Your task to perform on an android device: Open the calendar and show me this week's events Image 0: 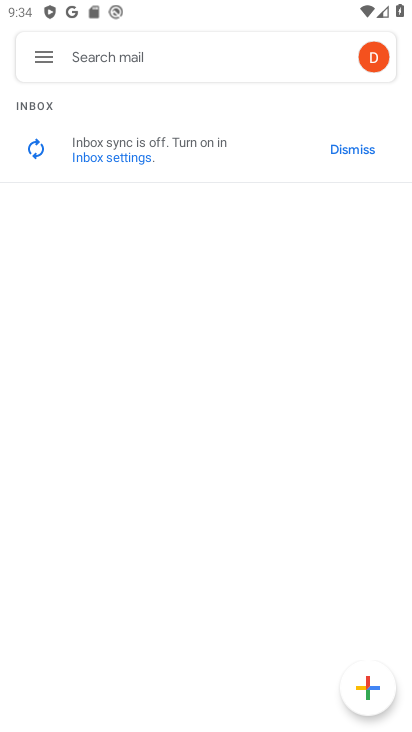
Step 0: press home button
Your task to perform on an android device: Open the calendar and show me this week's events Image 1: 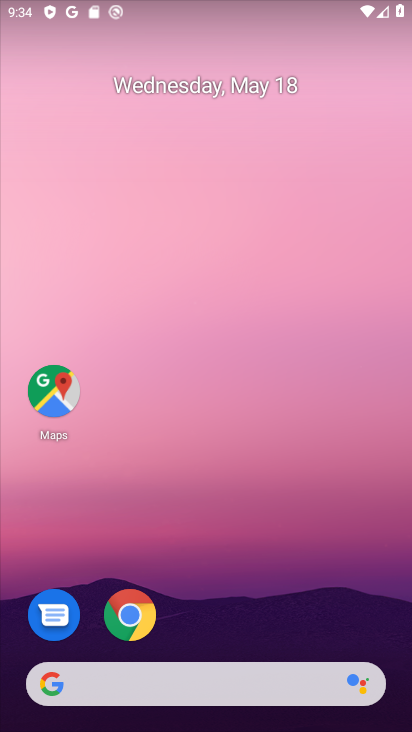
Step 1: drag from (276, 624) to (256, 22)
Your task to perform on an android device: Open the calendar and show me this week's events Image 2: 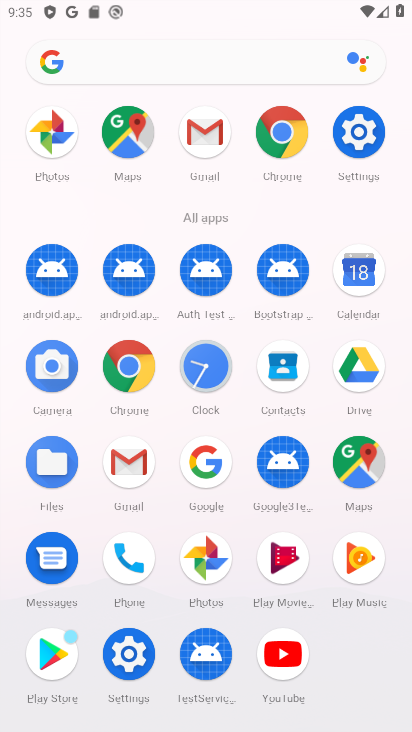
Step 2: click (344, 256)
Your task to perform on an android device: Open the calendar and show me this week's events Image 3: 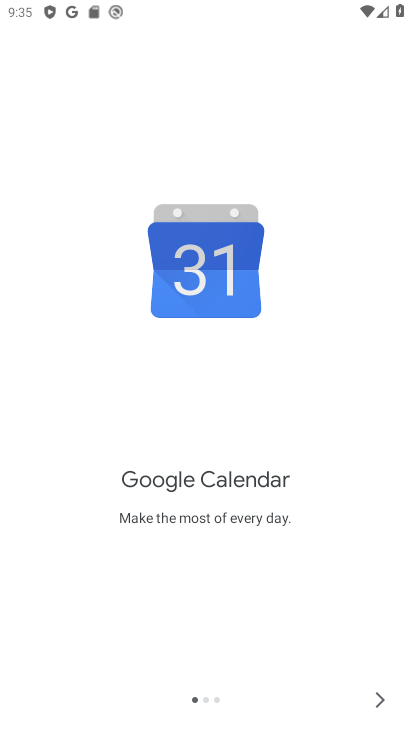
Step 3: click (386, 724)
Your task to perform on an android device: Open the calendar and show me this week's events Image 4: 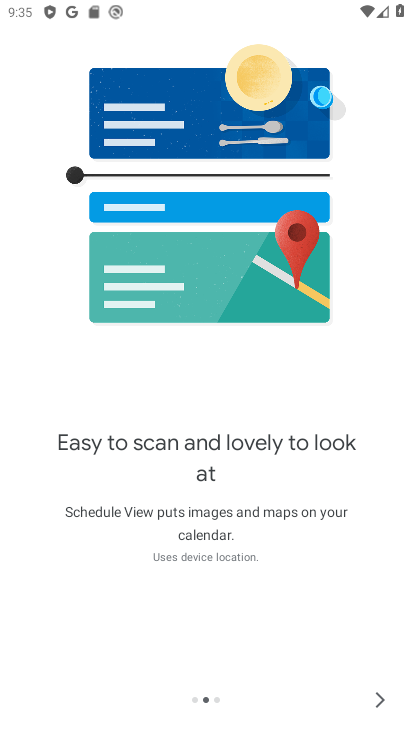
Step 4: click (375, 696)
Your task to perform on an android device: Open the calendar and show me this week's events Image 5: 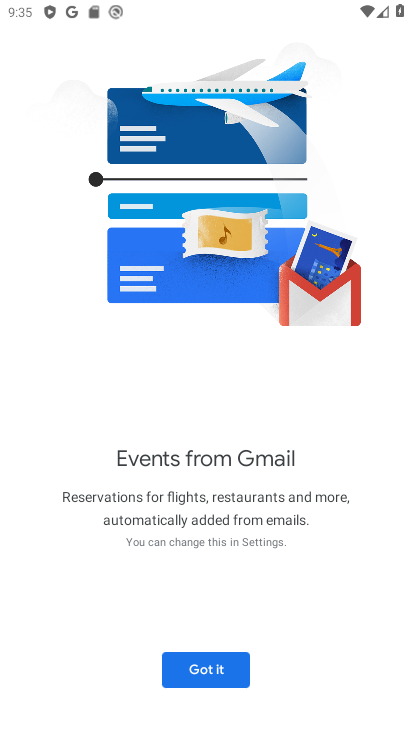
Step 5: click (225, 662)
Your task to perform on an android device: Open the calendar and show me this week's events Image 6: 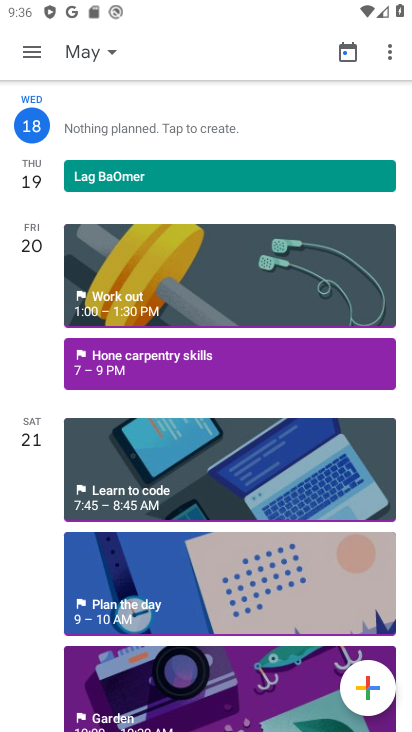
Step 6: click (92, 51)
Your task to perform on an android device: Open the calendar and show me this week's events Image 7: 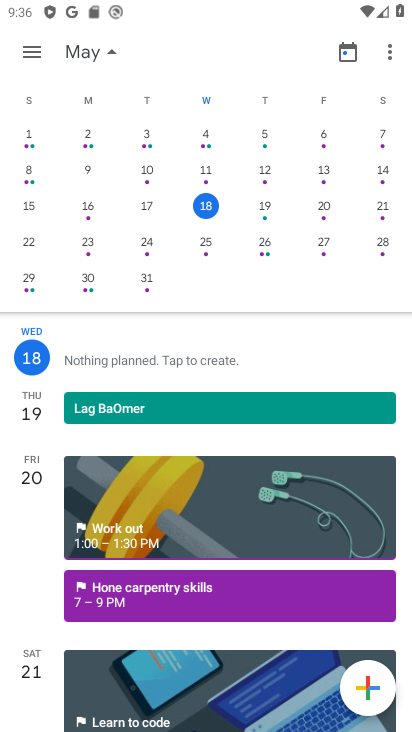
Step 7: click (37, 46)
Your task to perform on an android device: Open the calendar and show me this week's events Image 8: 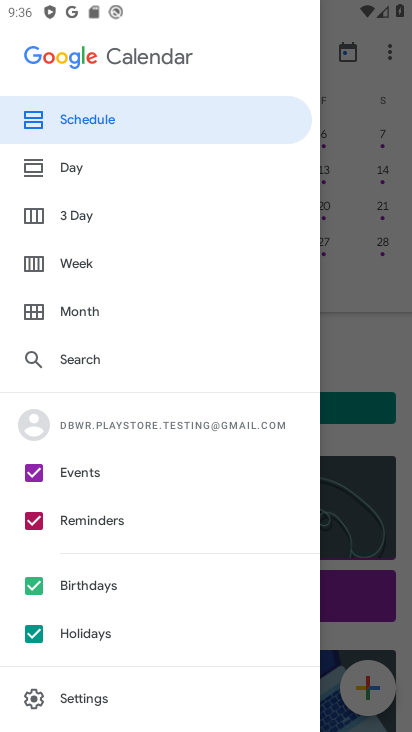
Step 8: click (96, 257)
Your task to perform on an android device: Open the calendar and show me this week's events Image 9: 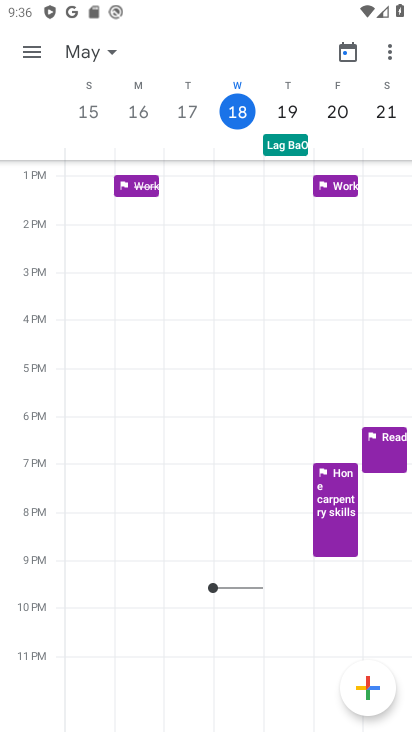
Step 9: task complete